Your task to perform on an android device: turn off notifications settings in the gmail app Image 0: 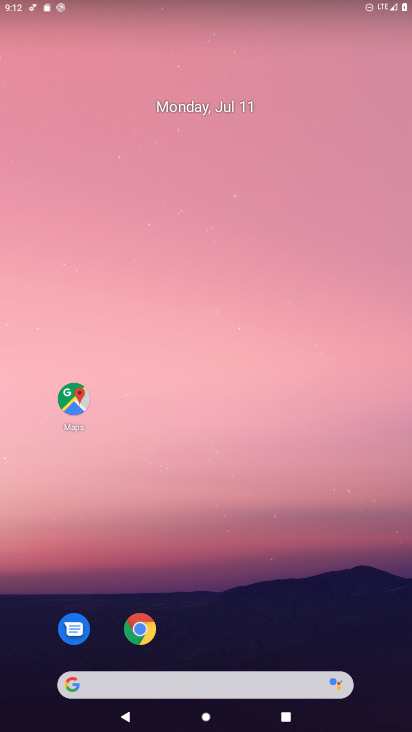
Step 0: drag from (172, 8) to (210, 684)
Your task to perform on an android device: turn off notifications settings in the gmail app Image 1: 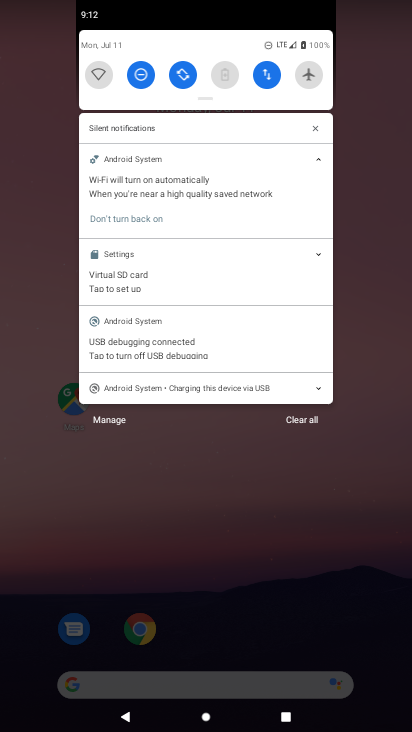
Step 1: drag from (194, 38) to (245, 532)
Your task to perform on an android device: turn off notifications settings in the gmail app Image 2: 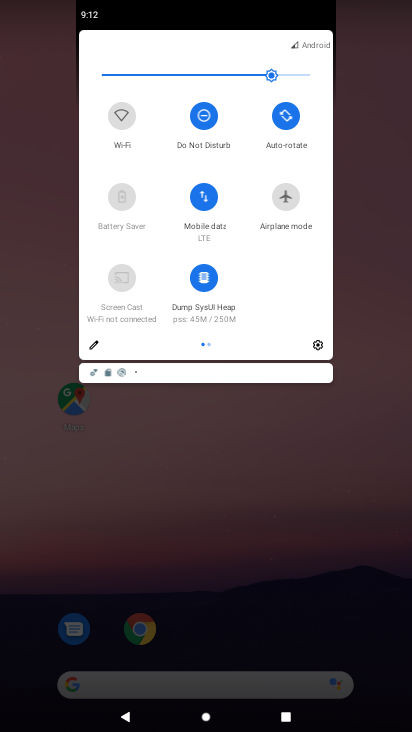
Step 2: click (316, 346)
Your task to perform on an android device: turn off notifications settings in the gmail app Image 3: 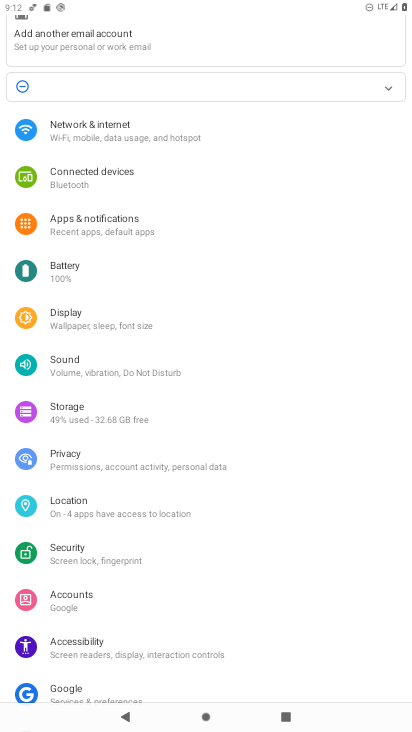
Step 3: click (115, 228)
Your task to perform on an android device: turn off notifications settings in the gmail app Image 4: 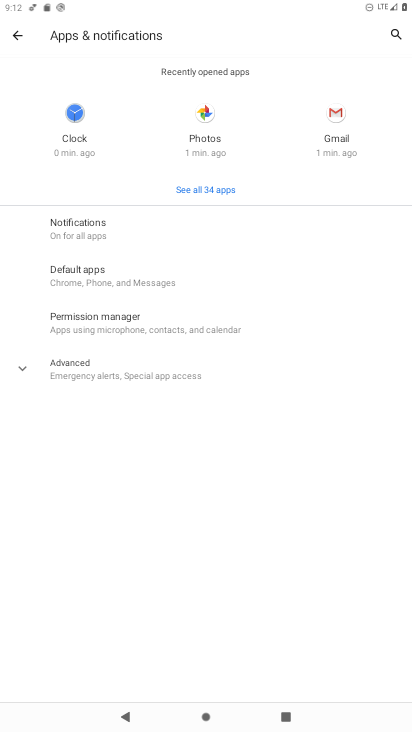
Step 4: click (344, 116)
Your task to perform on an android device: turn off notifications settings in the gmail app Image 5: 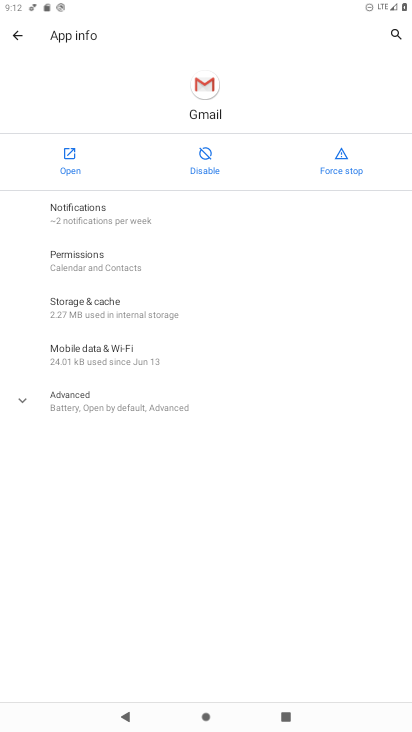
Step 5: click (127, 205)
Your task to perform on an android device: turn off notifications settings in the gmail app Image 6: 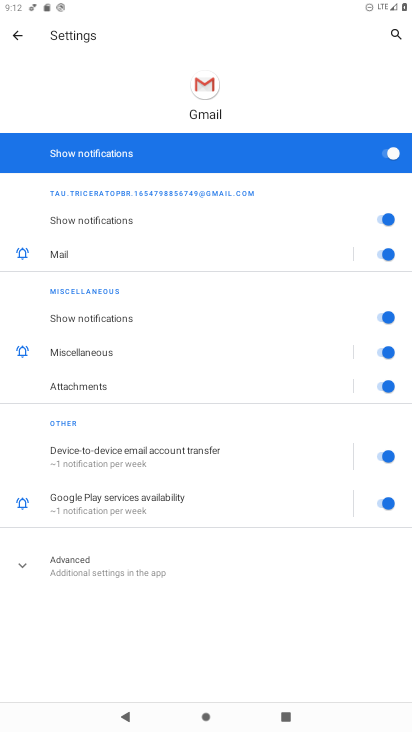
Step 6: click (389, 159)
Your task to perform on an android device: turn off notifications settings in the gmail app Image 7: 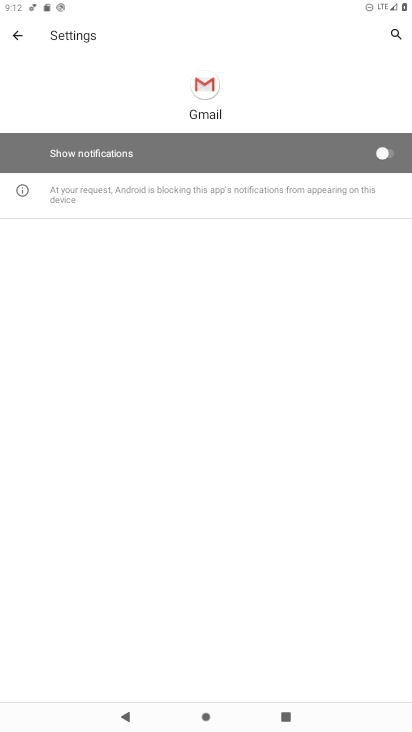
Step 7: task complete